Your task to perform on an android device: change text size in settings app Image 0: 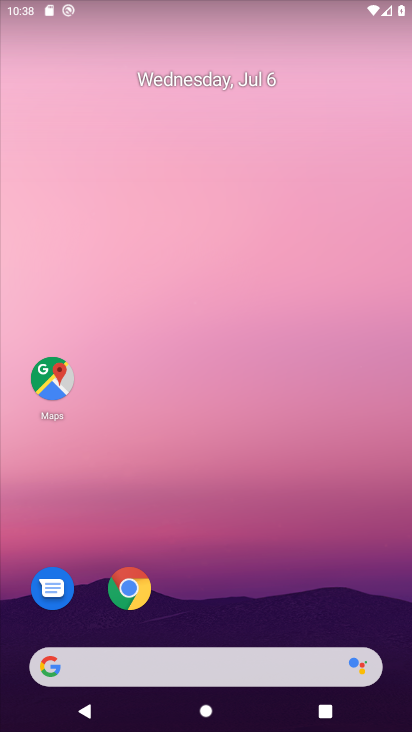
Step 0: drag from (236, 560) to (251, 6)
Your task to perform on an android device: change text size in settings app Image 1: 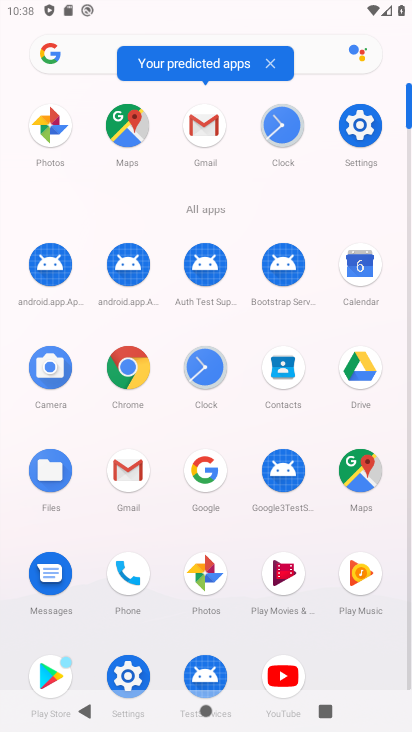
Step 1: click (361, 126)
Your task to perform on an android device: change text size in settings app Image 2: 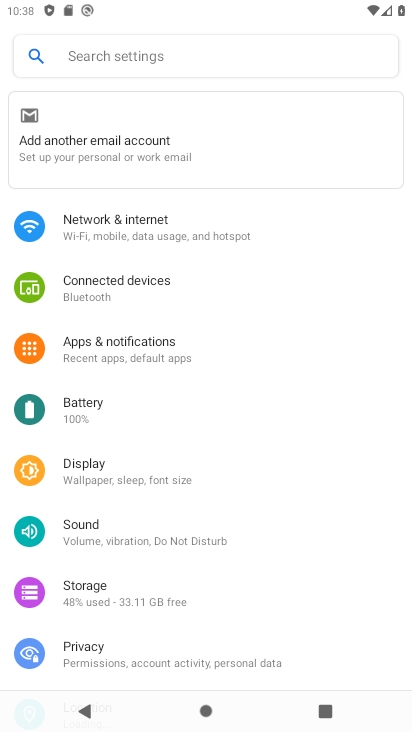
Step 2: drag from (156, 636) to (266, 134)
Your task to perform on an android device: change text size in settings app Image 3: 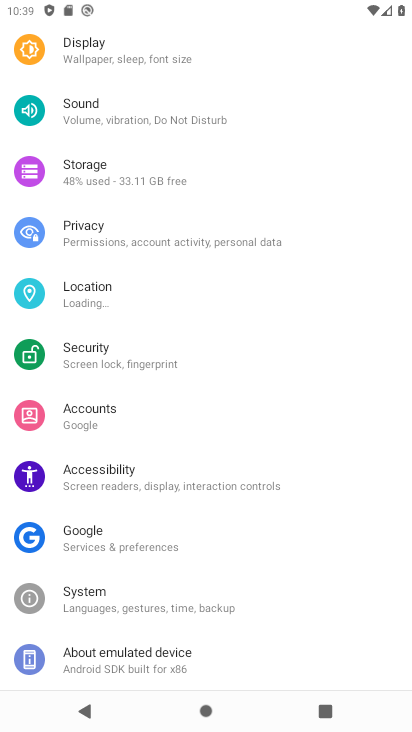
Step 3: drag from (190, 601) to (225, 283)
Your task to perform on an android device: change text size in settings app Image 4: 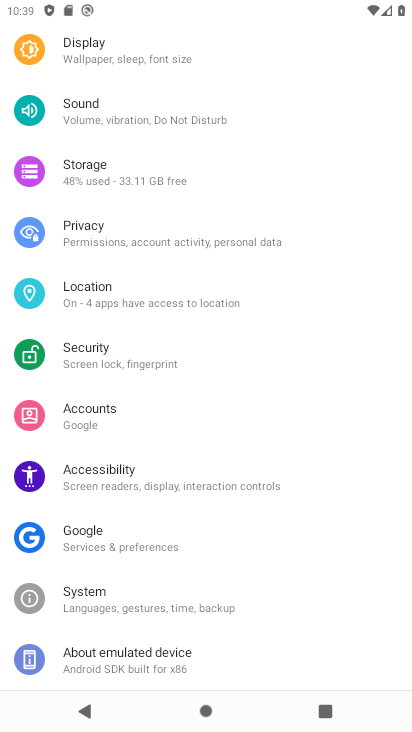
Step 4: drag from (167, 103) to (155, 355)
Your task to perform on an android device: change text size in settings app Image 5: 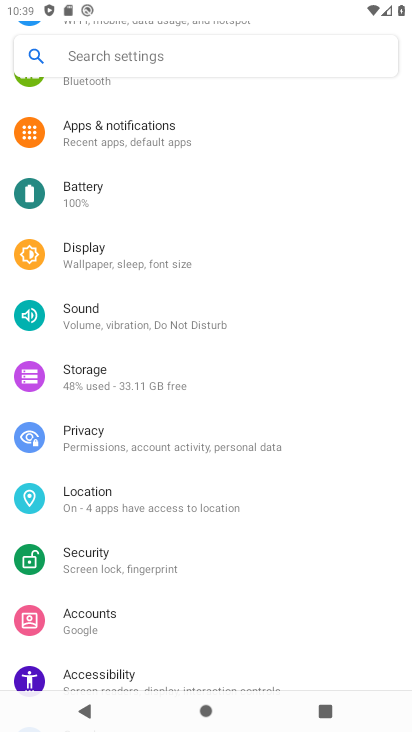
Step 5: click (104, 255)
Your task to perform on an android device: change text size in settings app Image 6: 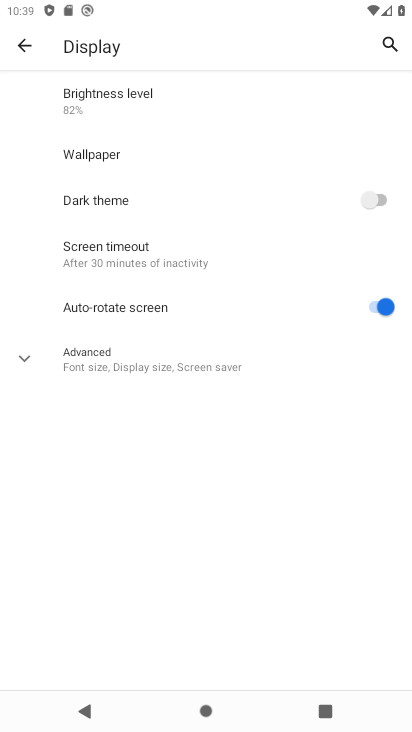
Step 6: click (124, 354)
Your task to perform on an android device: change text size in settings app Image 7: 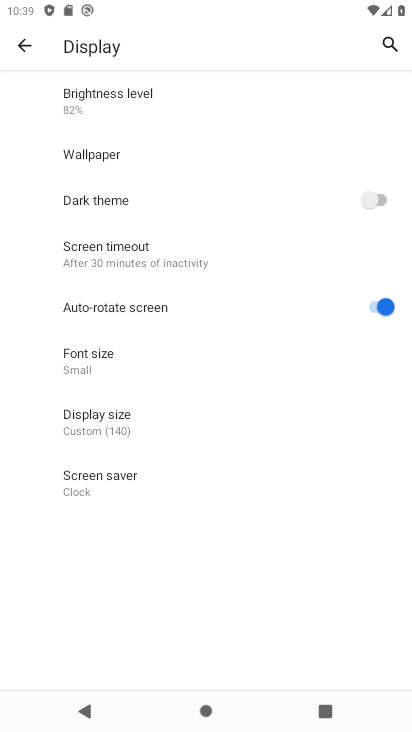
Step 7: click (89, 352)
Your task to perform on an android device: change text size in settings app Image 8: 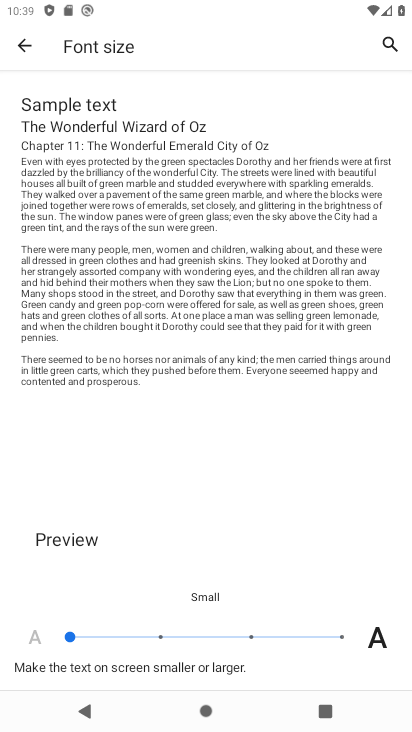
Step 8: click (148, 632)
Your task to perform on an android device: change text size in settings app Image 9: 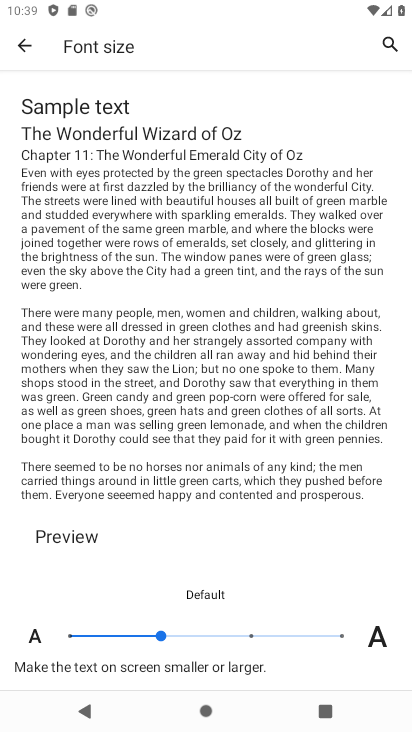
Step 9: task complete